Your task to perform on an android device: Go to privacy settings Image 0: 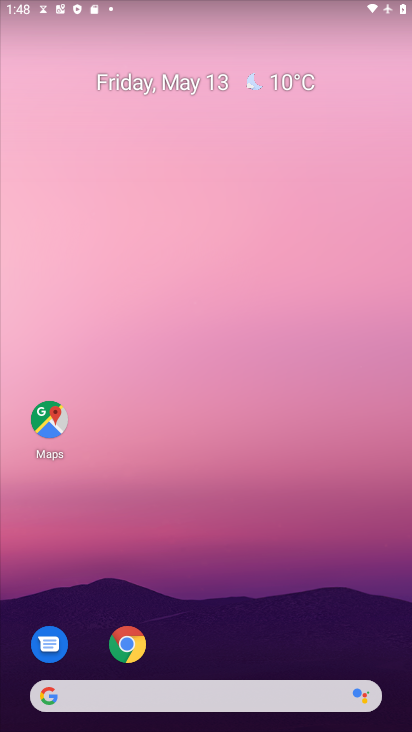
Step 0: drag from (204, 729) to (228, 23)
Your task to perform on an android device: Go to privacy settings Image 1: 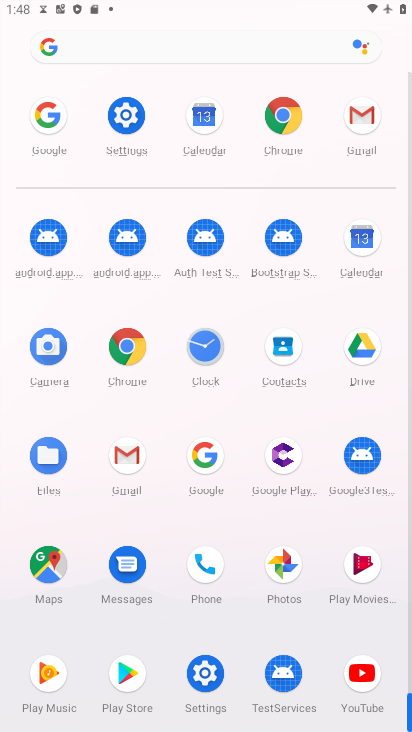
Step 1: click (119, 119)
Your task to perform on an android device: Go to privacy settings Image 2: 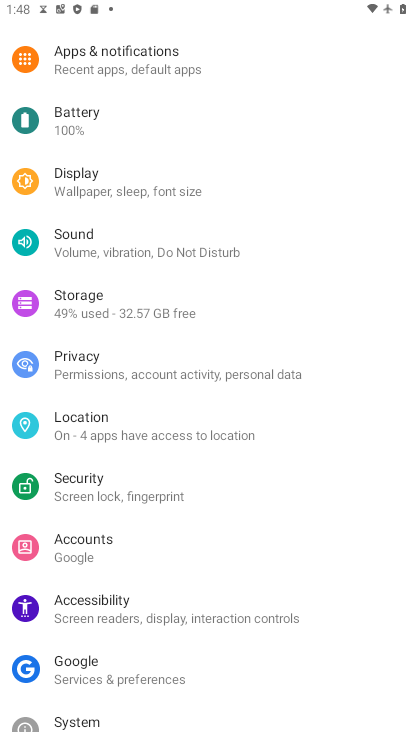
Step 2: click (90, 371)
Your task to perform on an android device: Go to privacy settings Image 3: 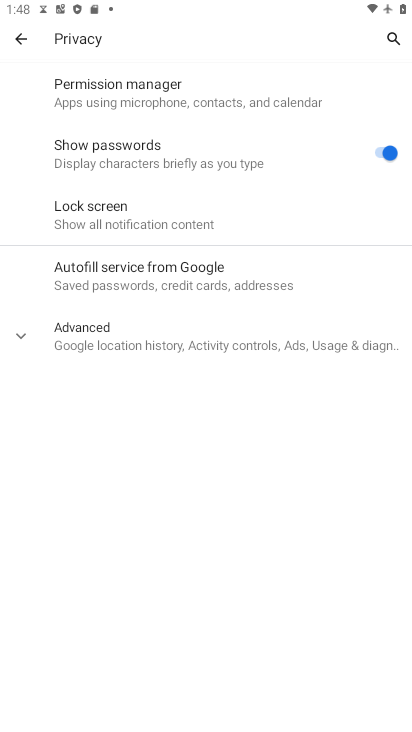
Step 3: task complete